Your task to perform on an android device: turn off notifications settings in the gmail app Image 0: 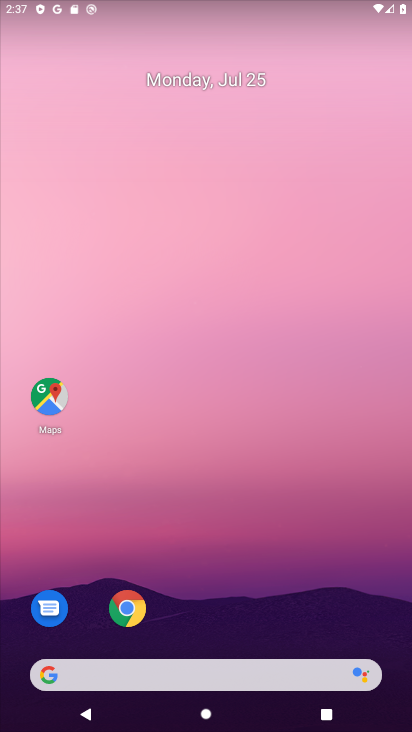
Step 0: drag from (48, 548) to (279, 98)
Your task to perform on an android device: turn off notifications settings in the gmail app Image 1: 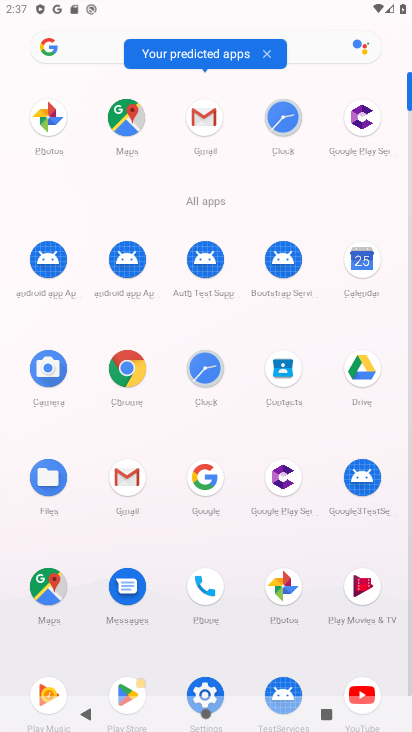
Step 1: click (210, 130)
Your task to perform on an android device: turn off notifications settings in the gmail app Image 2: 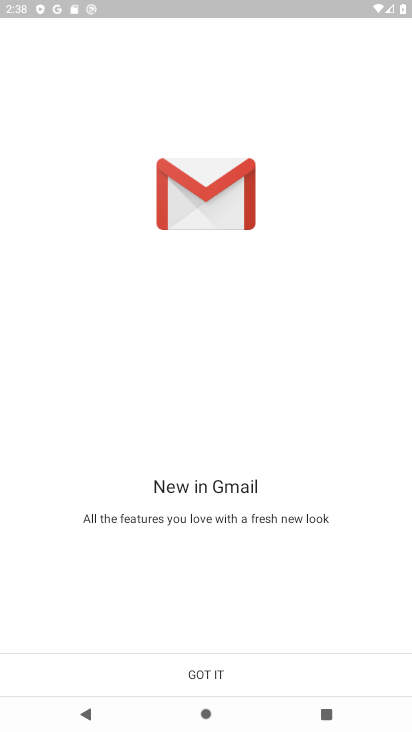
Step 2: click (176, 678)
Your task to perform on an android device: turn off notifications settings in the gmail app Image 3: 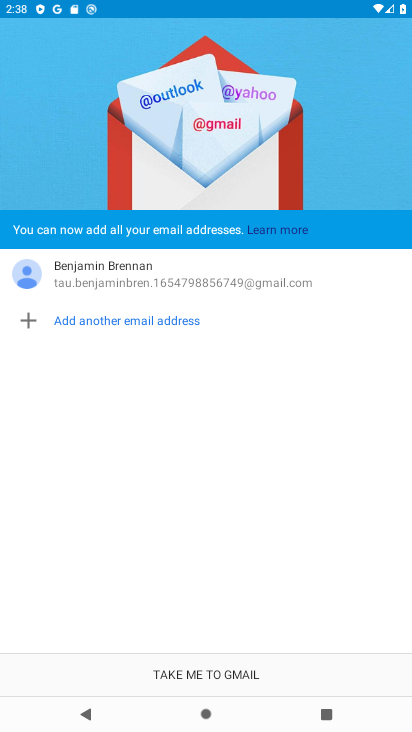
Step 3: click (153, 675)
Your task to perform on an android device: turn off notifications settings in the gmail app Image 4: 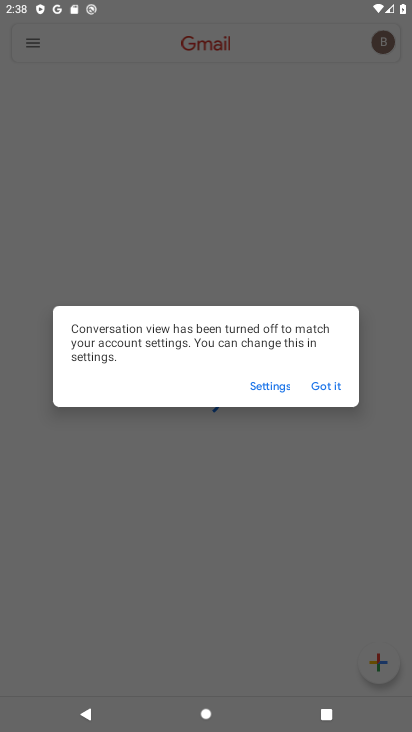
Step 4: click (323, 390)
Your task to perform on an android device: turn off notifications settings in the gmail app Image 5: 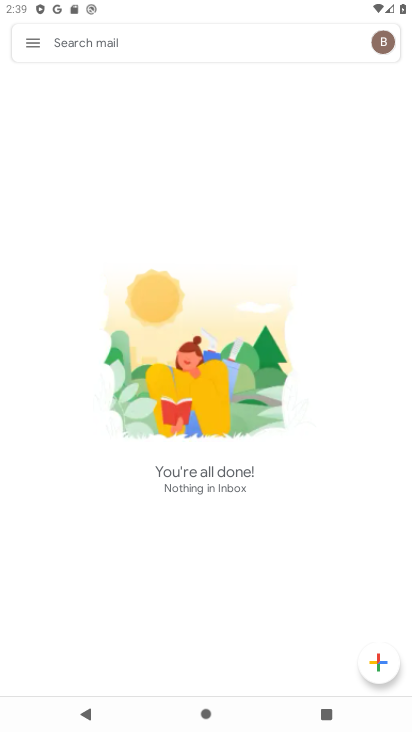
Step 5: click (34, 43)
Your task to perform on an android device: turn off notifications settings in the gmail app Image 6: 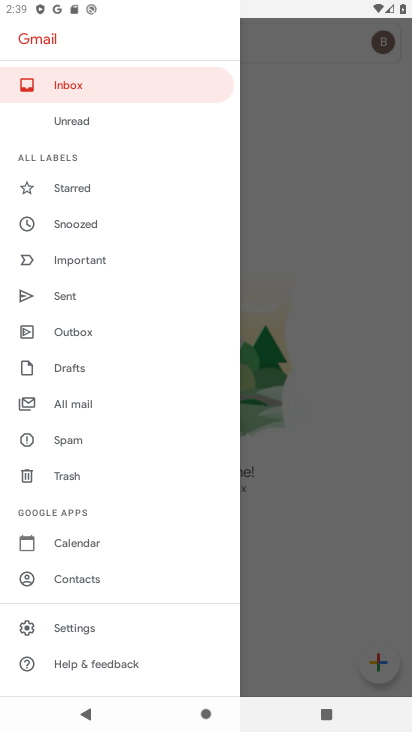
Step 6: click (51, 630)
Your task to perform on an android device: turn off notifications settings in the gmail app Image 7: 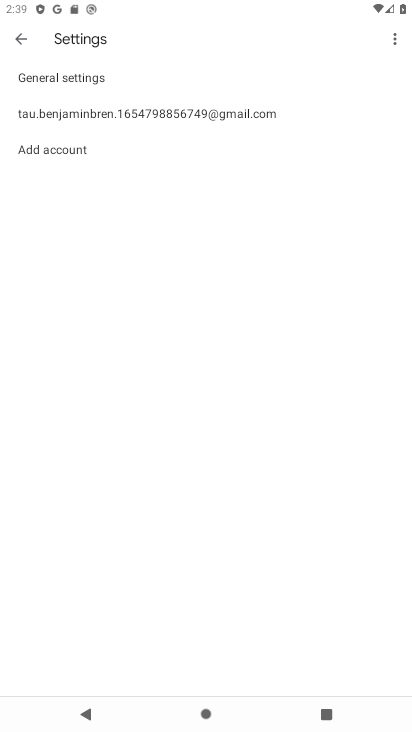
Step 7: click (145, 106)
Your task to perform on an android device: turn off notifications settings in the gmail app Image 8: 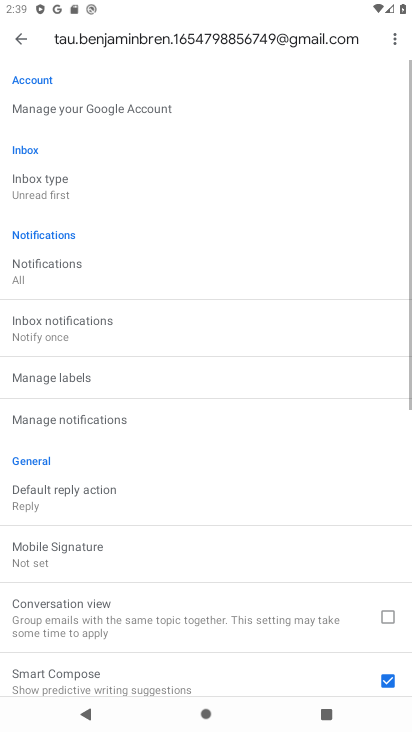
Step 8: click (26, 275)
Your task to perform on an android device: turn off notifications settings in the gmail app Image 9: 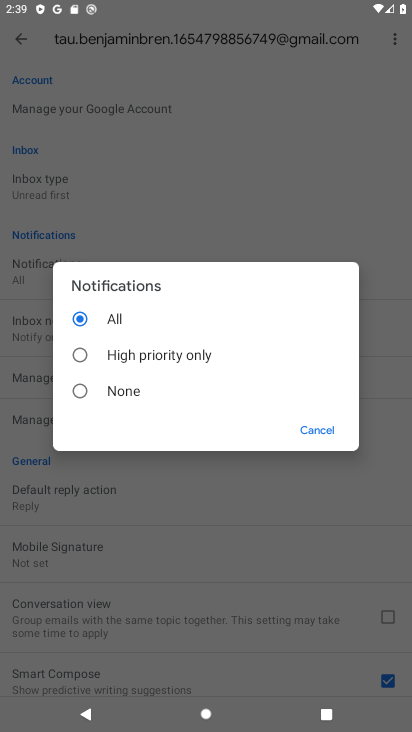
Step 9: click (315, 441)
Your task to perform on an android device: turn off notifications settings in the gmail app Image 10: 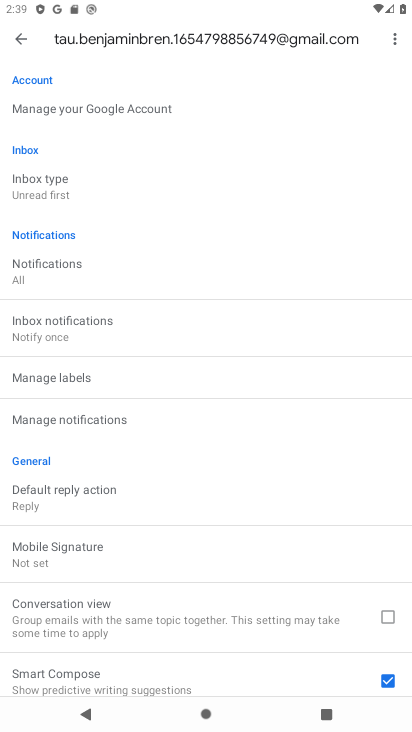
Step 10: click (69, 410)
Your task to perform on an android device: turn off notifications settings in the gmail app Image 11: 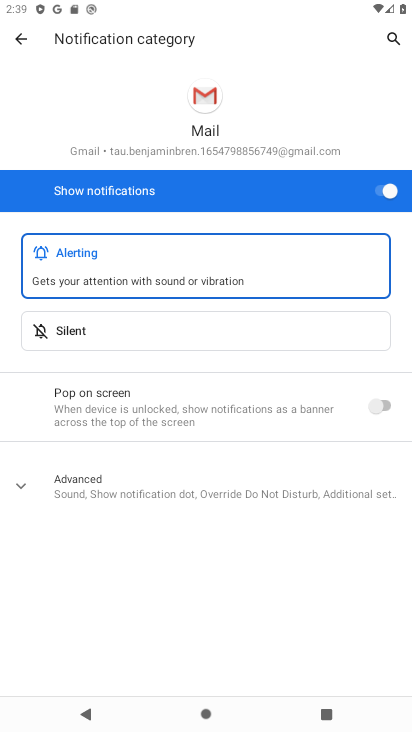
Step 11: click (391, 192)
Your task to perform on an android device: turn off notifications settings in the gmail app Image 12: 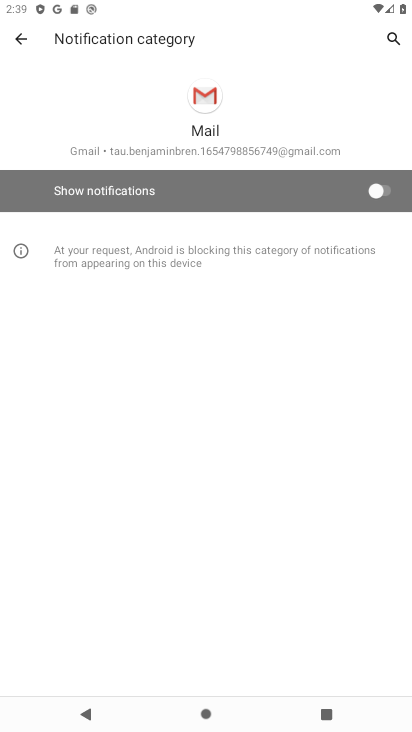
Step 12: task complete